Your task to perform on an android device: turn off improve location accuracy Image 0: 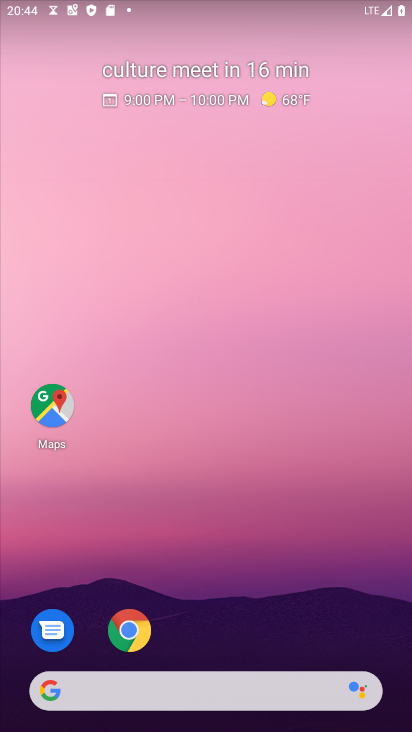
Step 0: drag from (273, 549) to (214, 45)
Your task to perform on an android device: turn off improve location accuracy Image 1: 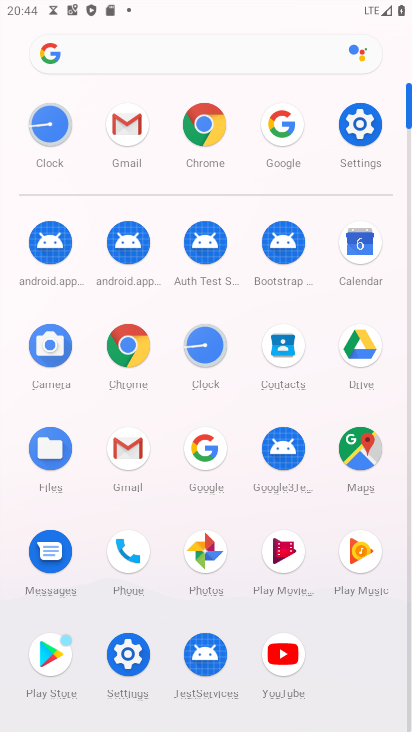
Step 1: click (129, 654)
Your task to perform on an android device: turn off improve location accuracy Image 2: 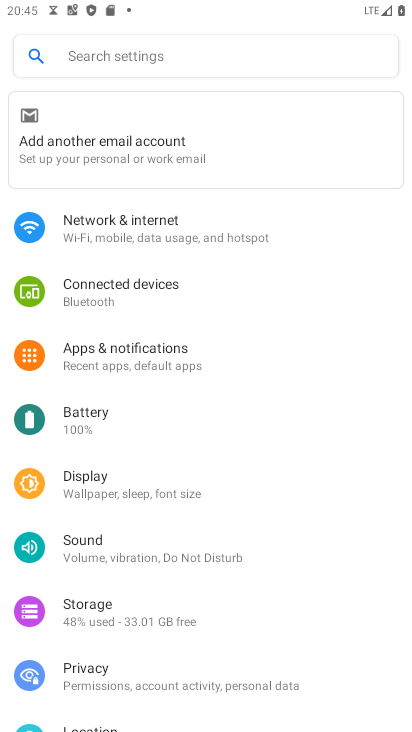
Step 2: drag from (130, 579) to (207, 492)
Your task to perform on an android device: turn off improve location accuracy Image 3: 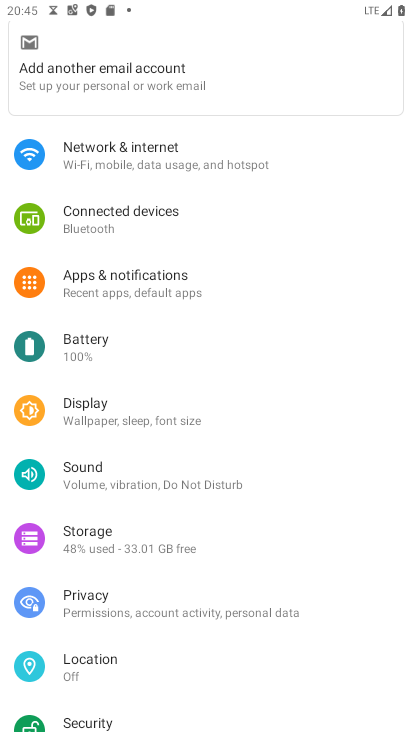
Step 3: click (103, 652)
Your task to perform on an android device: turn off improve location accuracy Image 4: 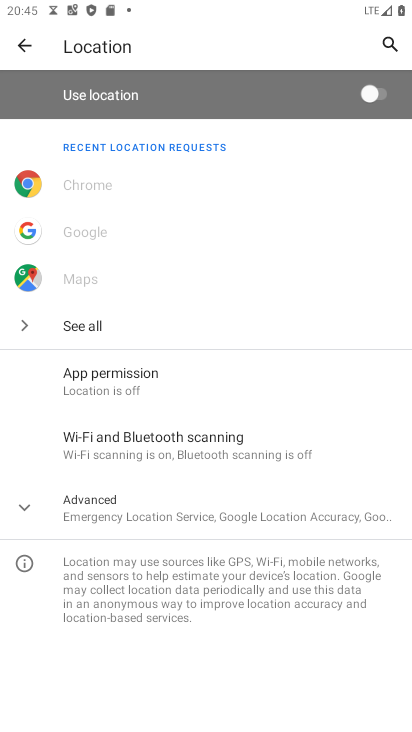
Step 4: click (155, 516)
Your task to perform on an android device: turn off improve location accuracy Image 5: 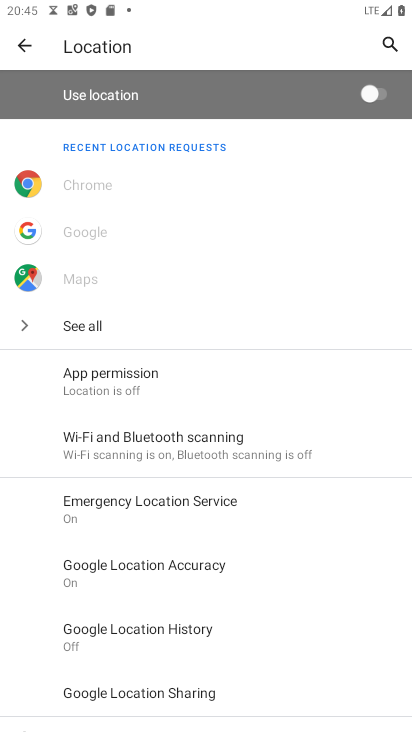
Step 5: drag from (98, 610) to (191, 488)
Your task to perform on an android device: turn off improve location accuracy Image 6: 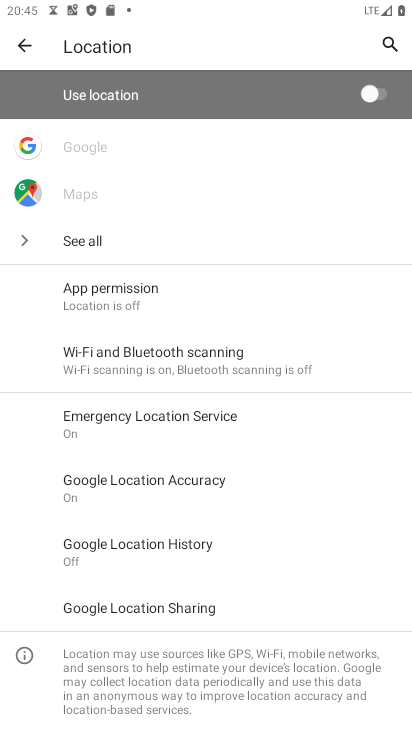
Step 6: click (209, 487)
Your task to perform on an android device: turn off improve location accuracy Image 7: 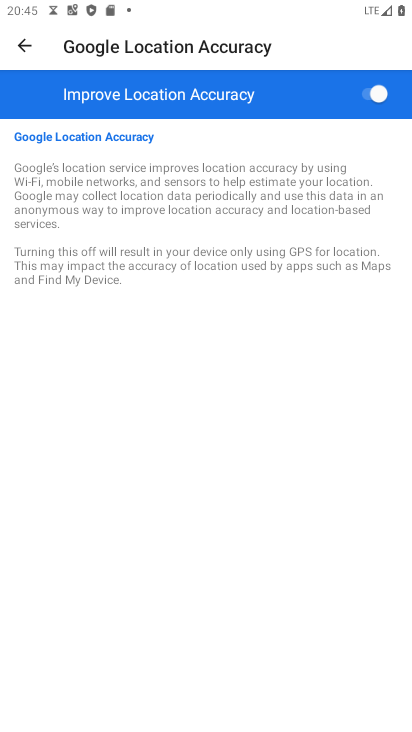
Step 7: click (383, 91)
Your task to perform on an android device: turn off improve location accuracy Image 8: 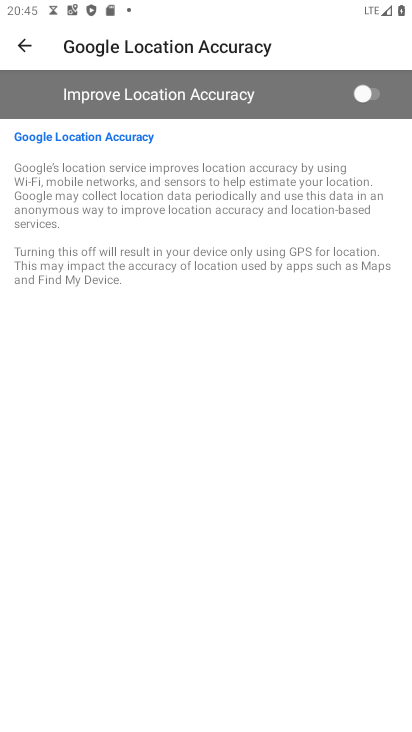
Step 8: task complete